Your task to perform on an android device: set an alarm Image 0: 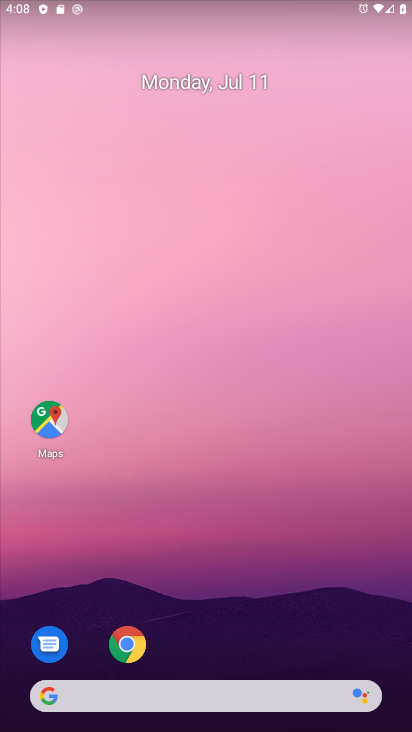
Step 0: drag from (326, 679) to (388, 530)
Your task to perform on an android device: set an alarm Image 1: 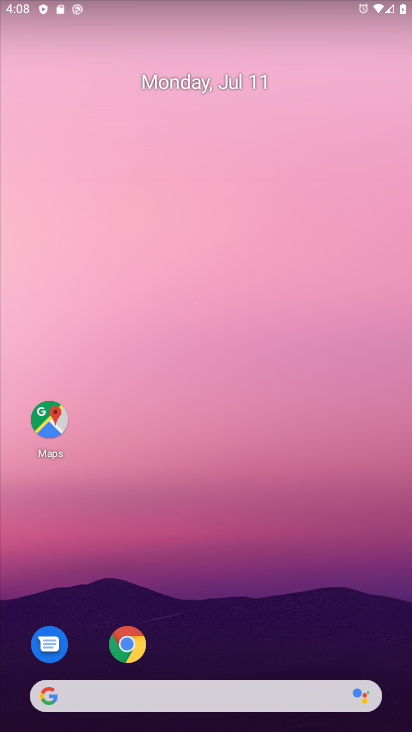
Step 1: drag from (268, 706) to (271, 9)
Your task to perform on an android device: set an alarm Image 2: 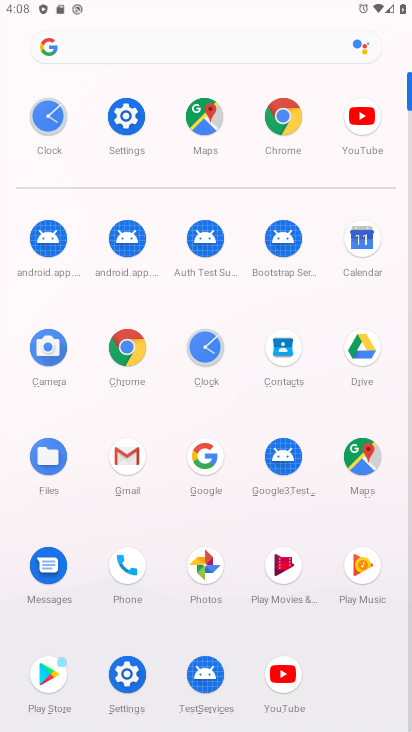
Step 2: click (213, 357)
Your task to perform on an android device: set an alarm Image 3: 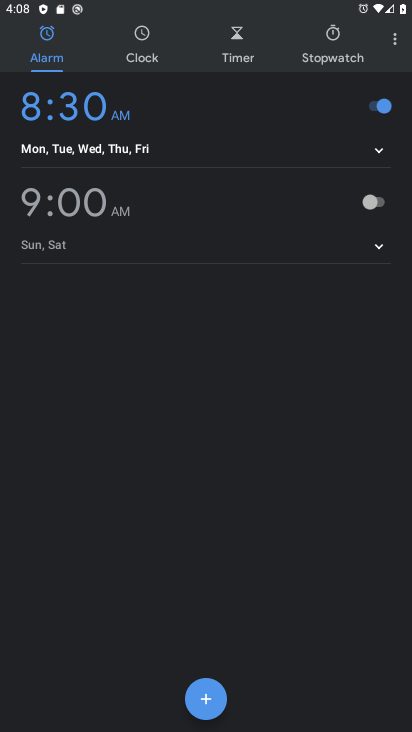
Step 3: task complete